Your task to perform on an android device: remove spam from my inbox in the gmail app Image 0: 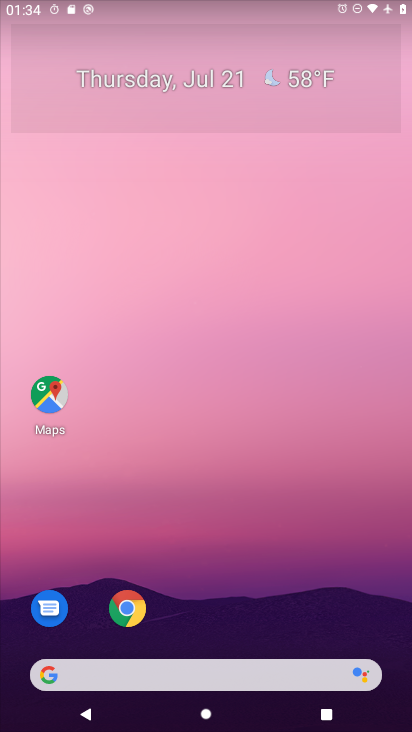
Step 0: drag from (247, 628) to (225, 7)
Your task to perform on an android device: remove spam from my inbox in the gmail app Image 1: 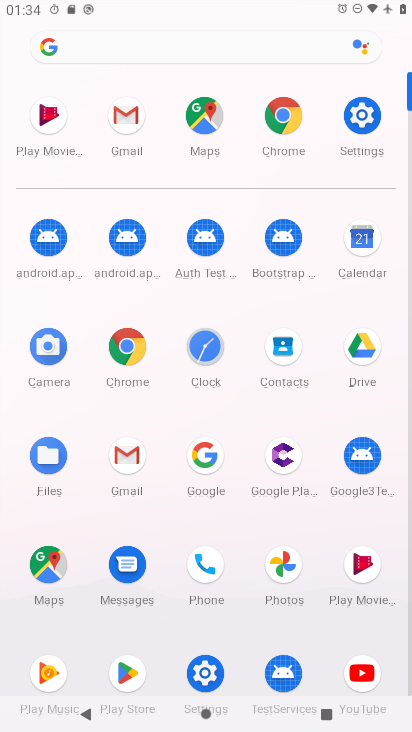
Step 1: click (135, 120)
Your task to perform on an android device: remove spam from my inbox in the gmail app Image 2: 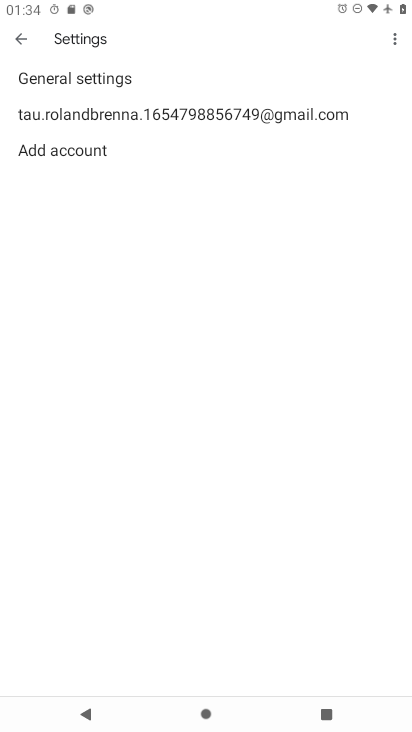
Step 2: click (18, 45)
Your task to perform on an android device: remove spam from my inbox in the gmail app Image 3: 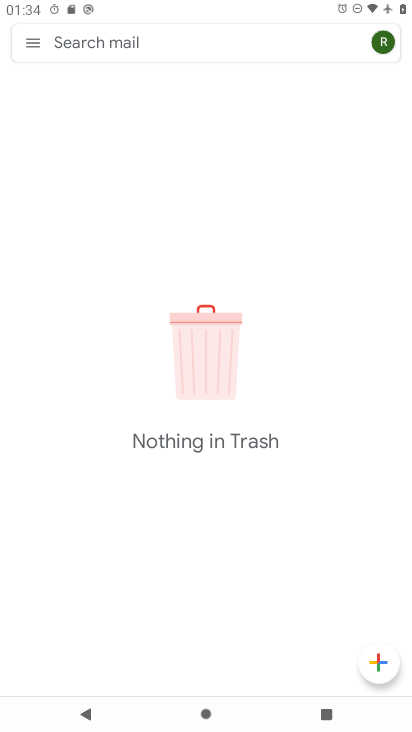
Step 3: click (29, 47)
Your task to perform on an android device: remove spam from my inbox in the gmail app Image 4: 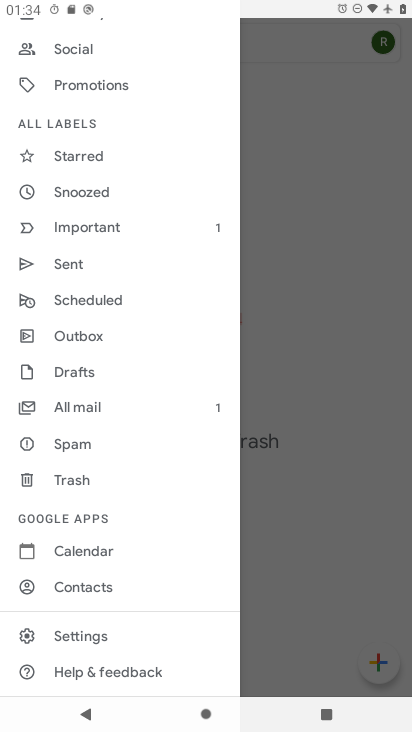
Step 4: click (79, 442)
Your task to perform on an android device: remove spam from my inbox in the gmail app Image 5: 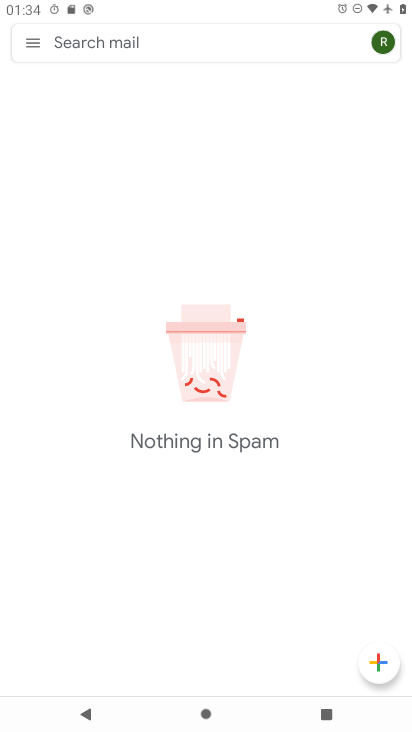
Step 5: task complete